Your task to perform on an android device: delete browsing data in the chrome app Image 0: 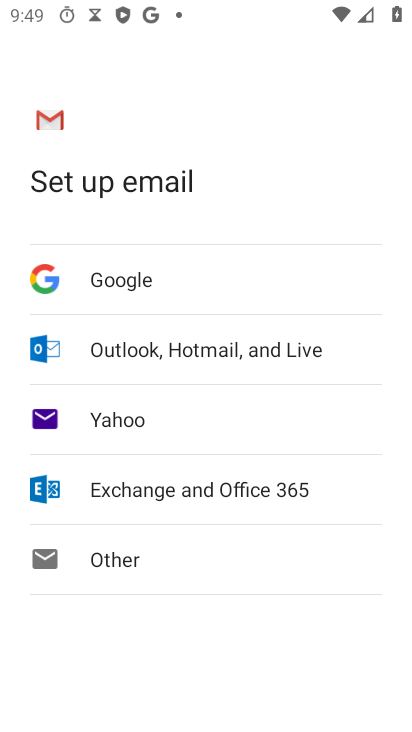
Step 0: press home button
Your task to perform on an android device: delete browsing data in the chrome app Image 1: 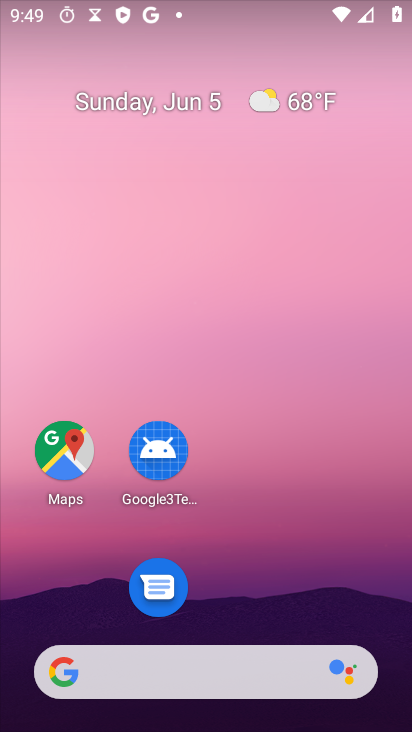
Step 1: drag from (278, 578) to (85, 56)
Your task to perform on an android device: delete browsing data in the chrome app Image 2: 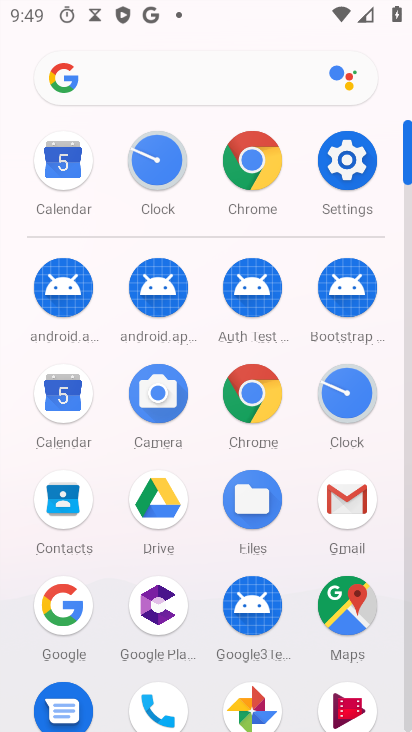
Step 2: click (239, 382)
Your task to perform on an android device: delete browsing data in the chrome app Image 3: 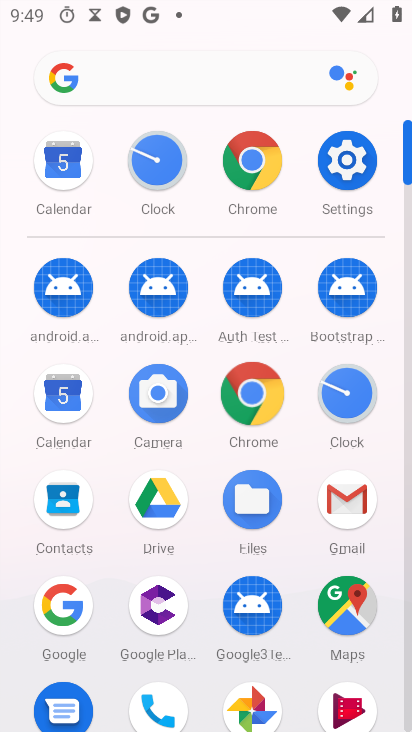
Step 3: click (239, 382)
Your task to perform on an android device: delete browsing data in the chrome app Image 4: 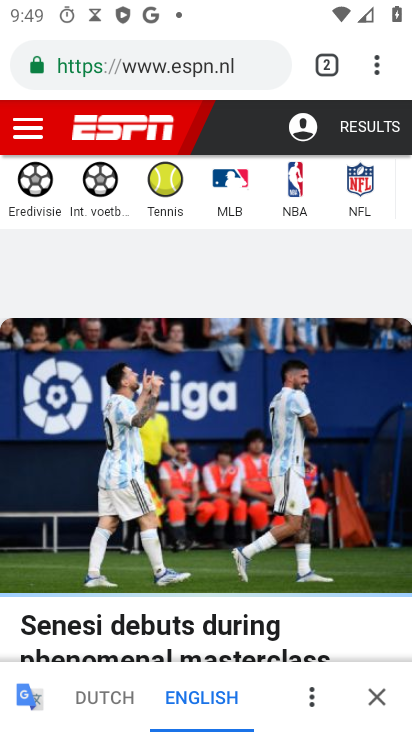
Step 4: click (371, 77)
Your task to perform on an android device: delete browsing data in the chrome app Image 5: 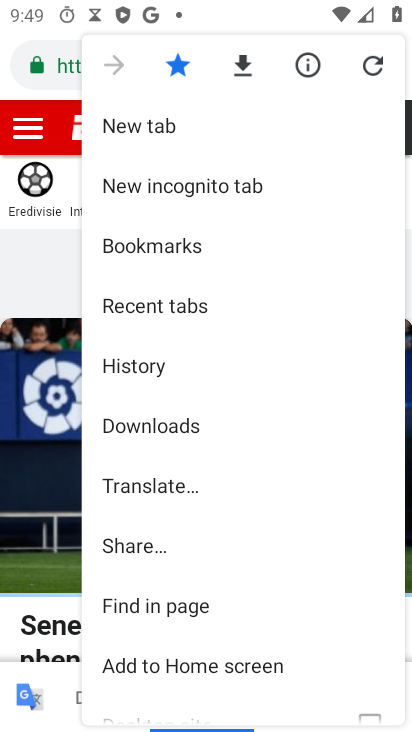
Step 5: drag from (173, 651) to (156, 432)
Your task to perform on an android device: delete browsing data in the chrome app Image 6: 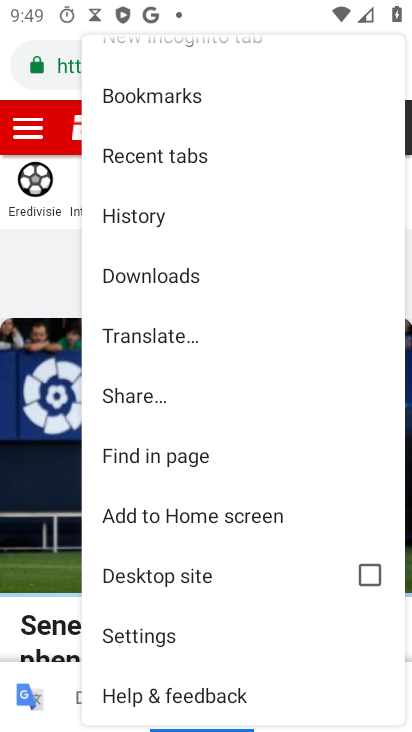
Step 6: click (155, 205)
Your task to perform on an android device: delete browsing data in the chrome app Image 7: 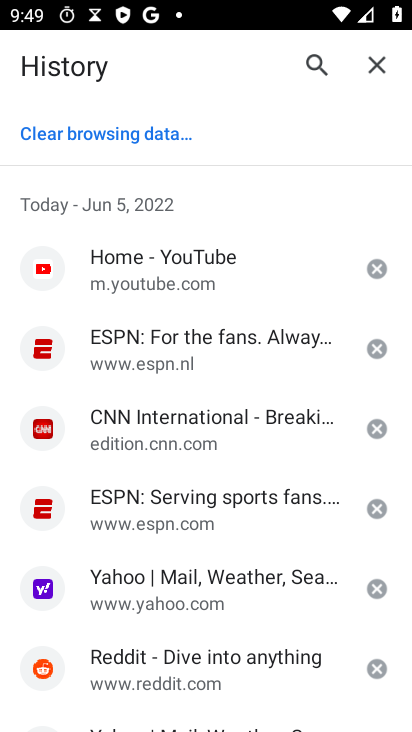
Step 7: click (136, 132)
Your task to perform on an android device: delete browsing data in the chrome app Image 8: 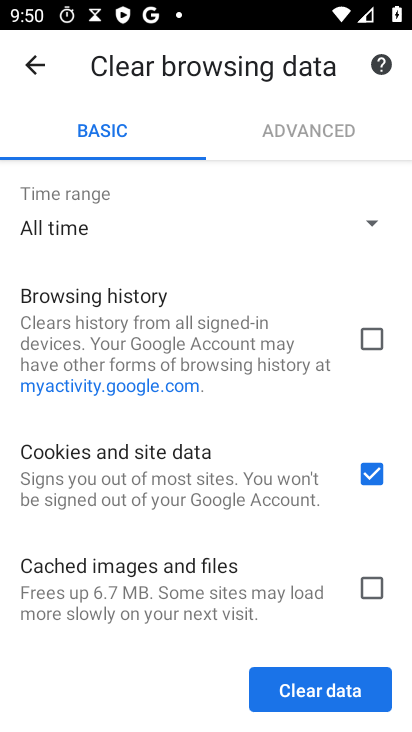
Step 8: click (359, 348)
Your task to perform on an android device: delete browsing data in the chrome app Image 9: 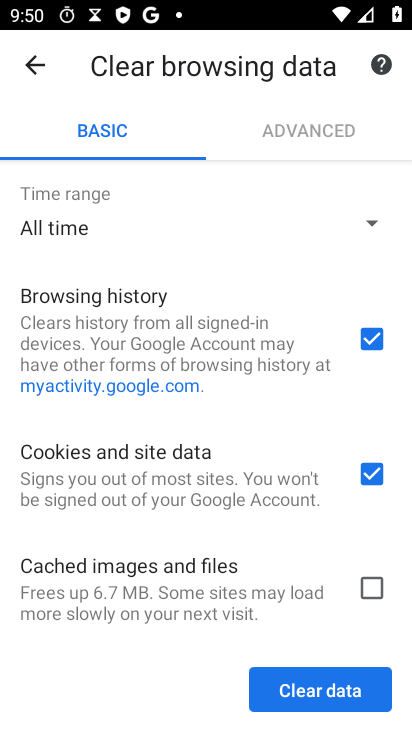
Step 9: click (363, 587)
Your task to perform on an android device: delete browsing data in the chrome app Image 10: 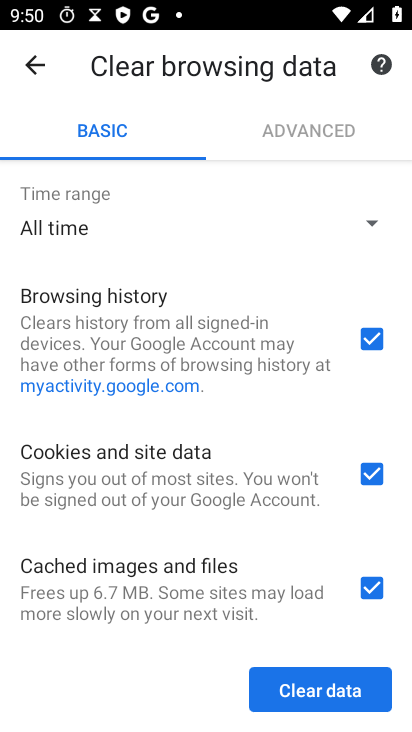
Step 10: click (319, 681)
Your task to perform on an android device: delete browsing data in the chrome app Image 11: 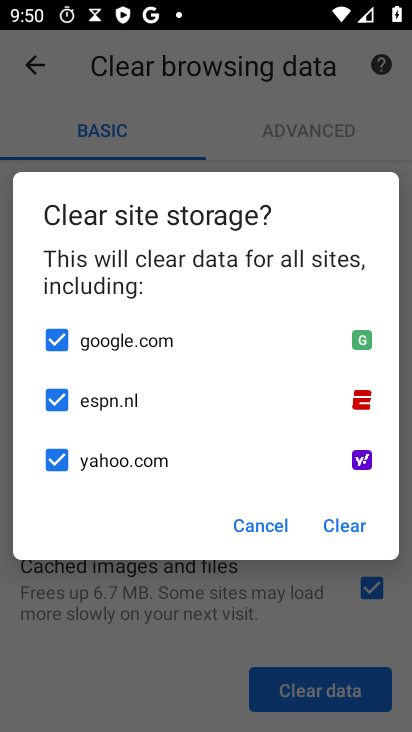
Step 11: click (338, 516)
Your task to perform on an android device: delete browsing data in the chrome app Image 12: 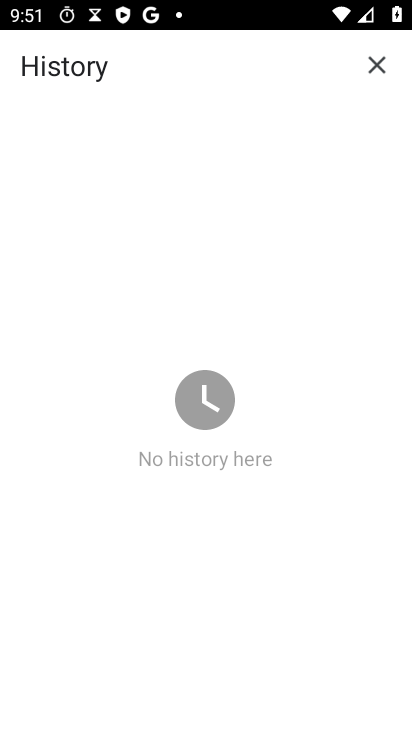
Step 12: task complete